Your task to perform on an android device: Find coffee shops on Maps Image 0: 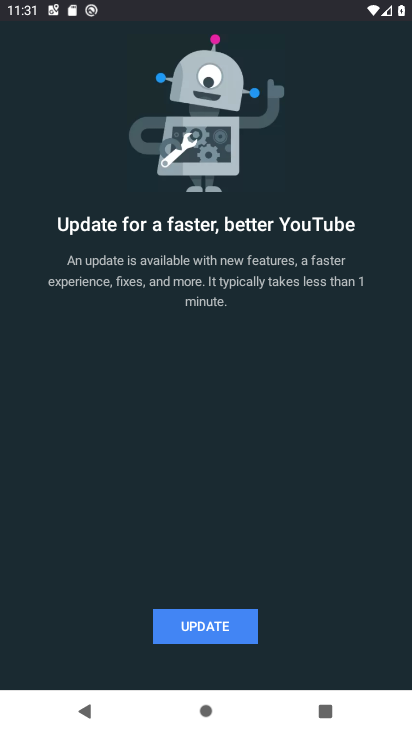
Step 0: press home button
Your task to perform on an android device: Find coffee shops on Maps Image 1: 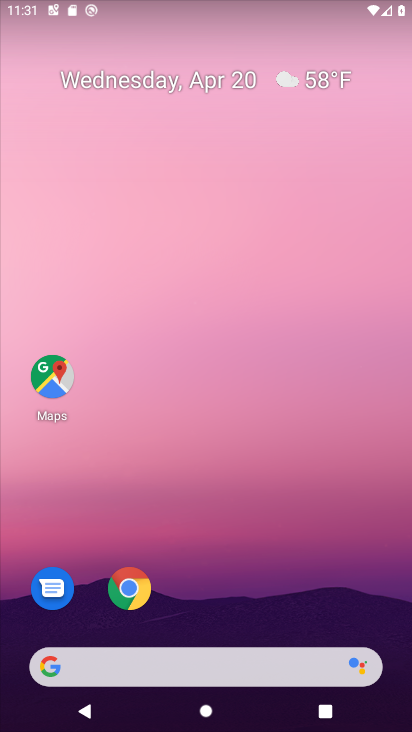
Step 1: click (34, 373)
Your task to perform on an android device: Find coffee shops on Maps Image 2: 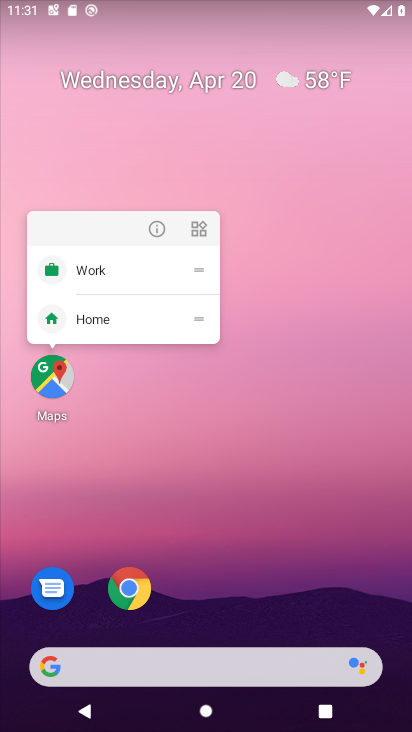
Step 2: click (133, 328)
Your task to perform on an android device: Find coffee shops on Maps Image 3: 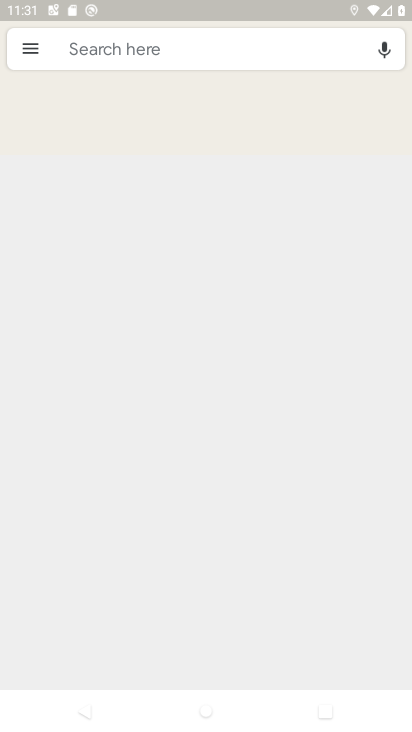
Step 3: click (200, 43)
Your task to perform on an android device: Find coffee shops on Maps Image 4: 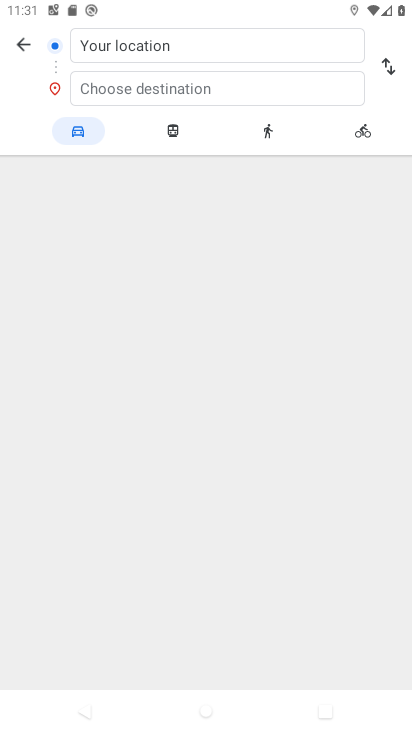
Step 4: click (21, 46)
Your task to perform on an android device: Find coffee shops on Maps Image 5: 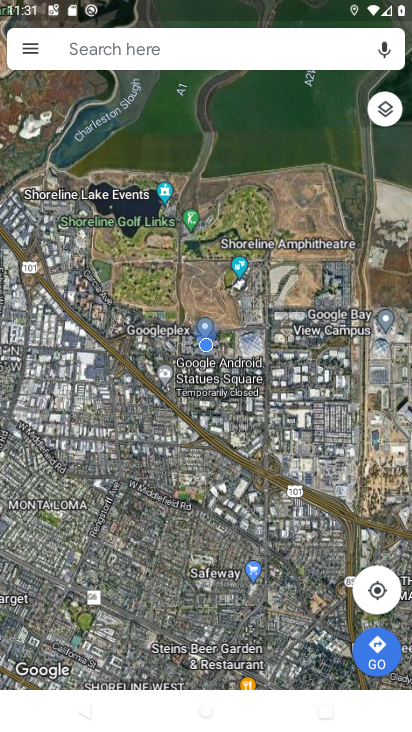
Step 5: click (153, 44)
Your task to perform on an android device: Find coffee shops on Maps Image 6: 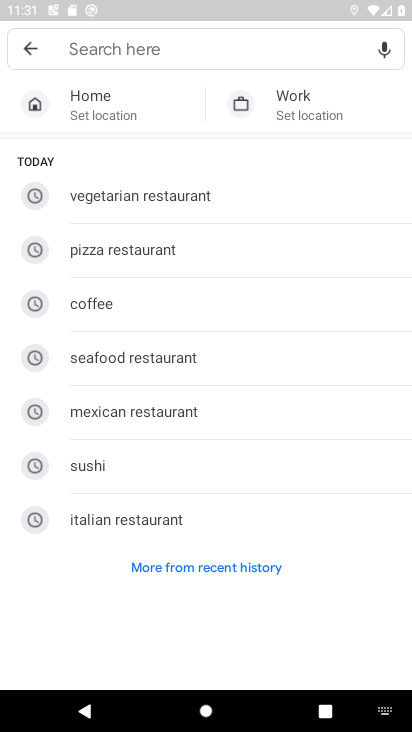
Step 6: click (136, 298)
Your task to perform on an android device: Find coffee shops on Maps Image 7: 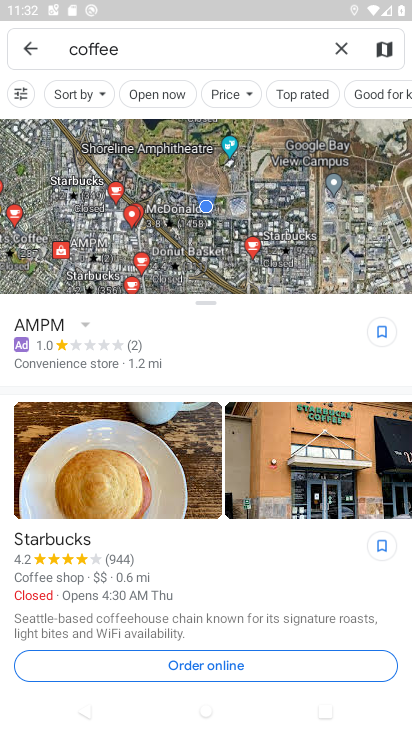
Step 7: task complete